Your task to perform on an android device: View the shopping cart on newegg.com. Add "usb-a to usb-b" to the cart on newegg.com Image 0: 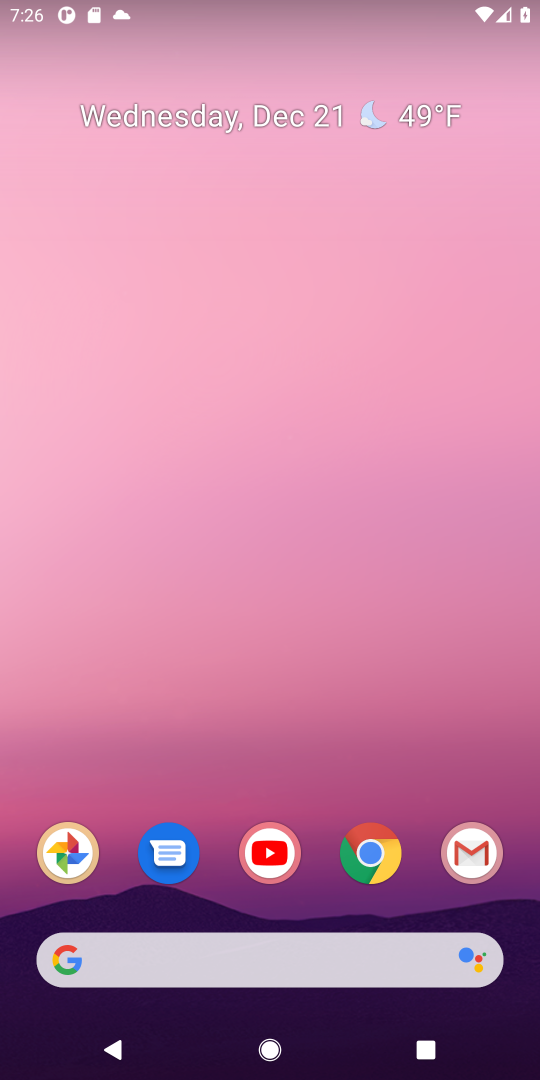
Step 0: click (375, 852)
Your task to perform on an android device: View the shopping cart on newegg.com. Add "usb-a to usb-b" to the cart on newegg.com Image 1: 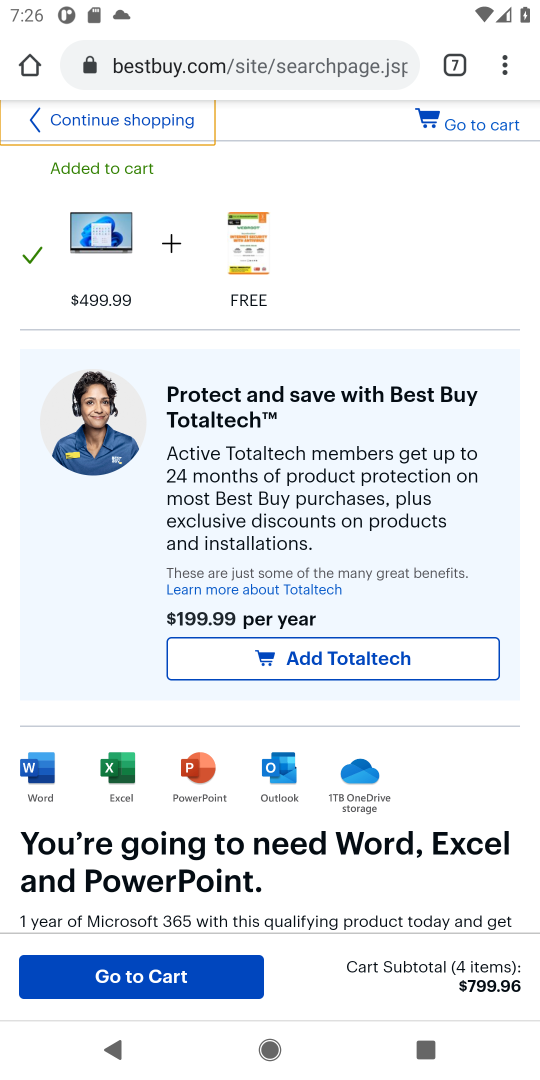
Step 1: click (452, 65)
Your task to perform on an android device: View the shopping cart on newegg.com. Add "usb-a to usb-b" to the cart on newegg.com Image 2: 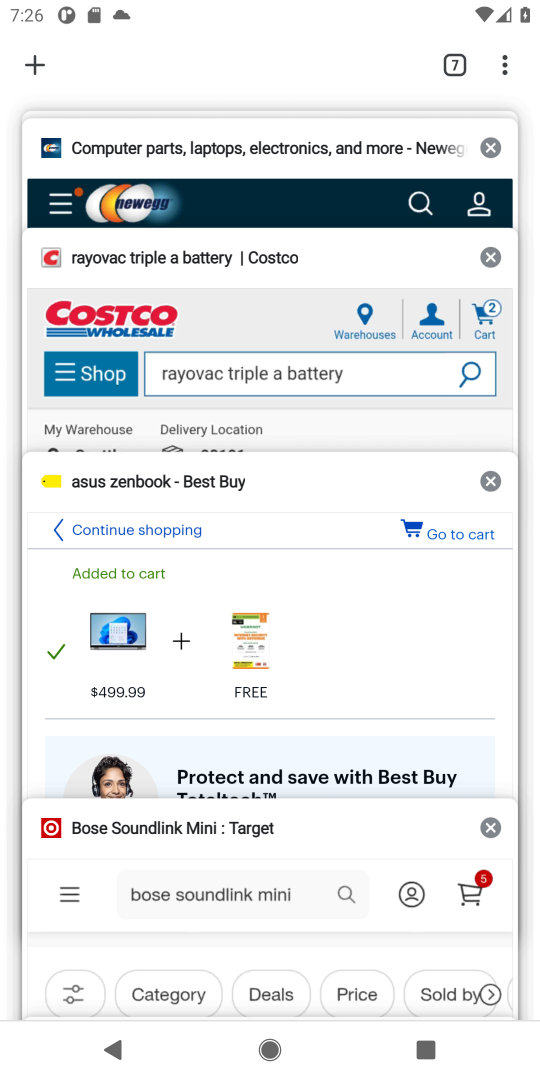
Step 2: click (318, 178)
Your task to perform on an android device: View the shopping cart on newegg.com. Add "usb-a to usb-b" to the cart on newegg.com Image 3: 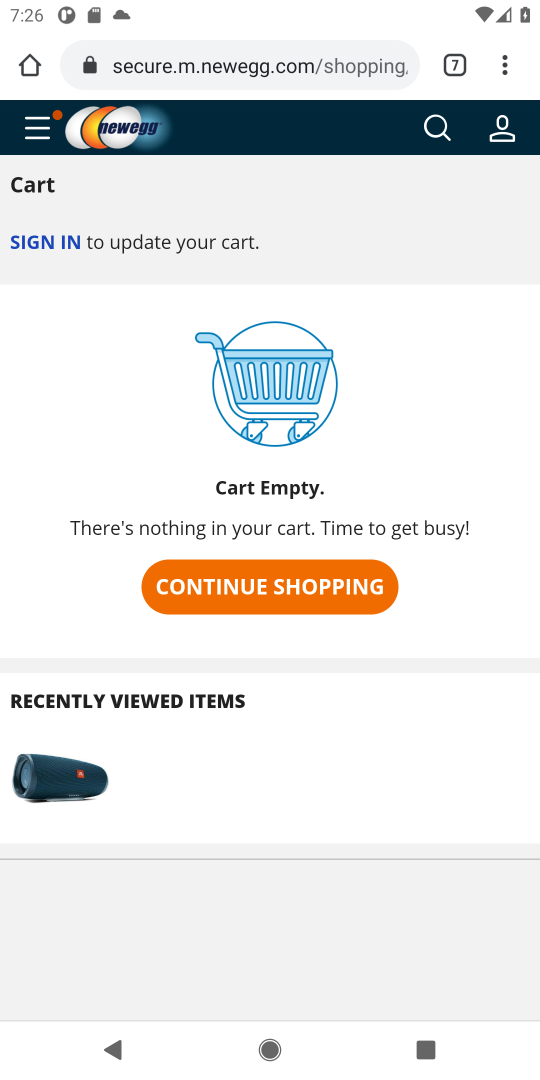
Step 3: click (440, 117)
Your task to perform on an android device: View the shopping cart on newegg.com. Add "usb-a to usb-b" to the cart on newegg.com Image 4: 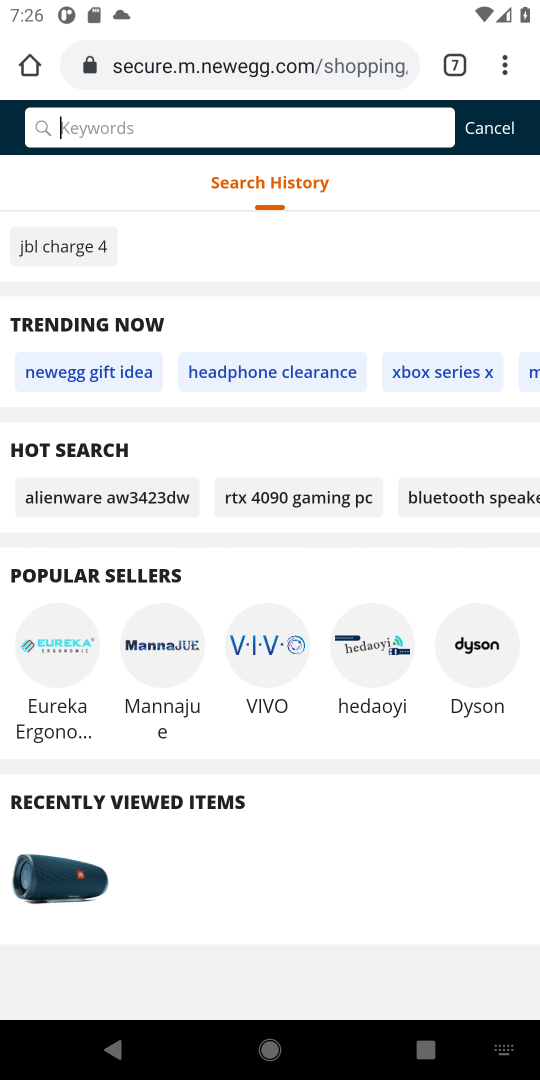
Step 4: type "usb-a to usb-b"
Your task to perform on an android device: View the shopping cart on newegg.com. Add "usb-a to usb-b" to the cart on newegg.com Image 5: 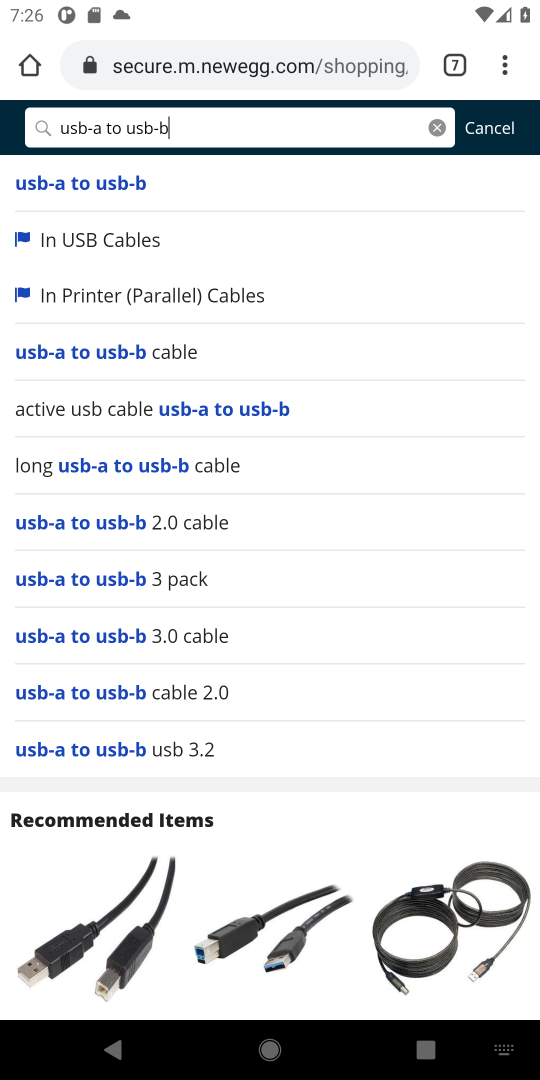
Step 5: click (47, 181)
Your task to perform on an android device: View the shopping cart on newegg.com. Add "usb-a to usb-b" to the cart on newegg.com Image 6: 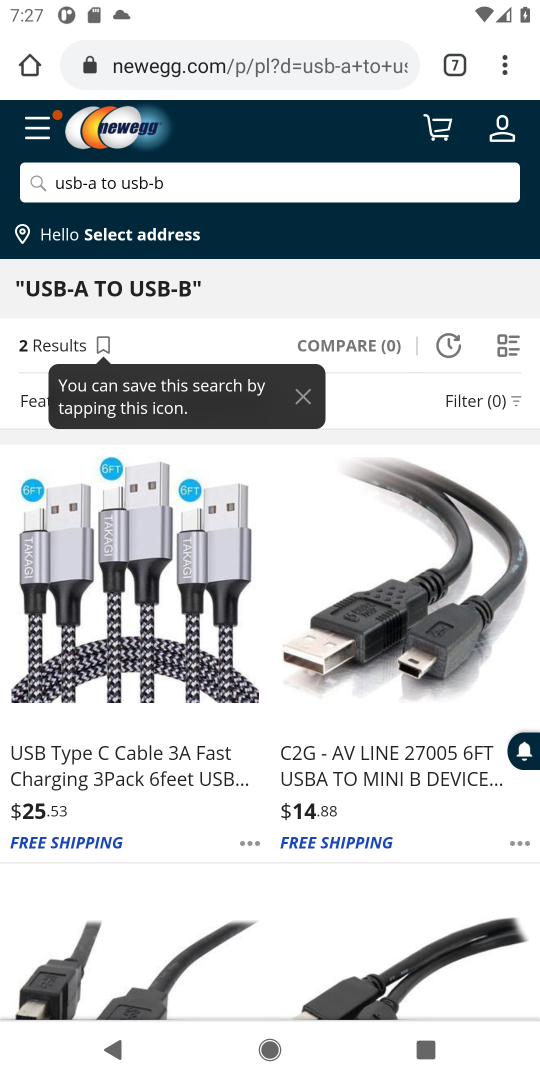
Step 6: drag from (212, 847) to (268, 611)
Your task to perform on an android device: View the shopping cart on newegg.com. Add "usb-a to usb-b" to the cart on newegg.com Image 7: 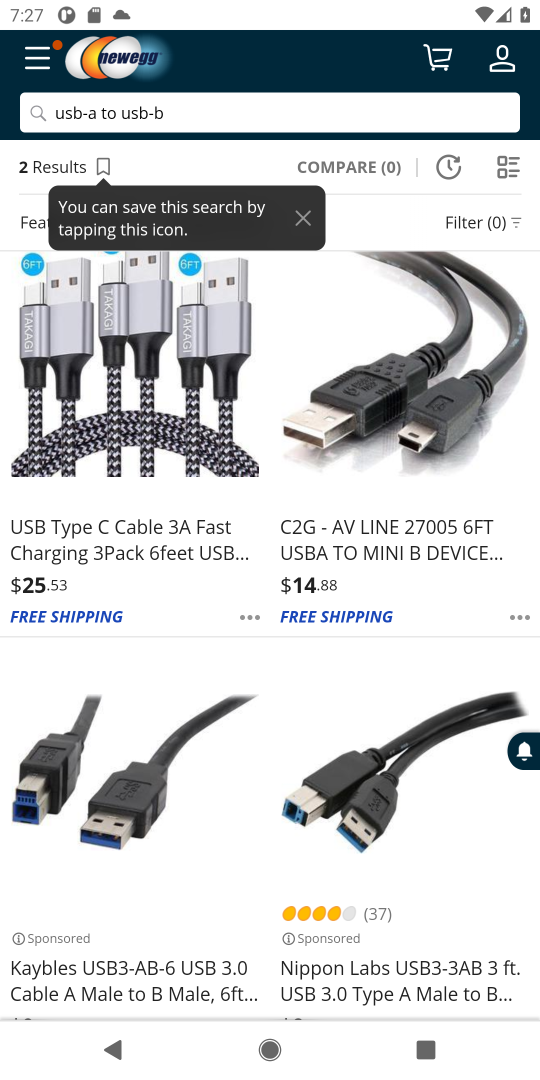
Step 7: drag from (181, 903) to (237, 516)
Your task to perform on an android device: View the shopping cart on newegg.com. Add "usb-a to usb-b" to the cart on newegg.com Image 8: 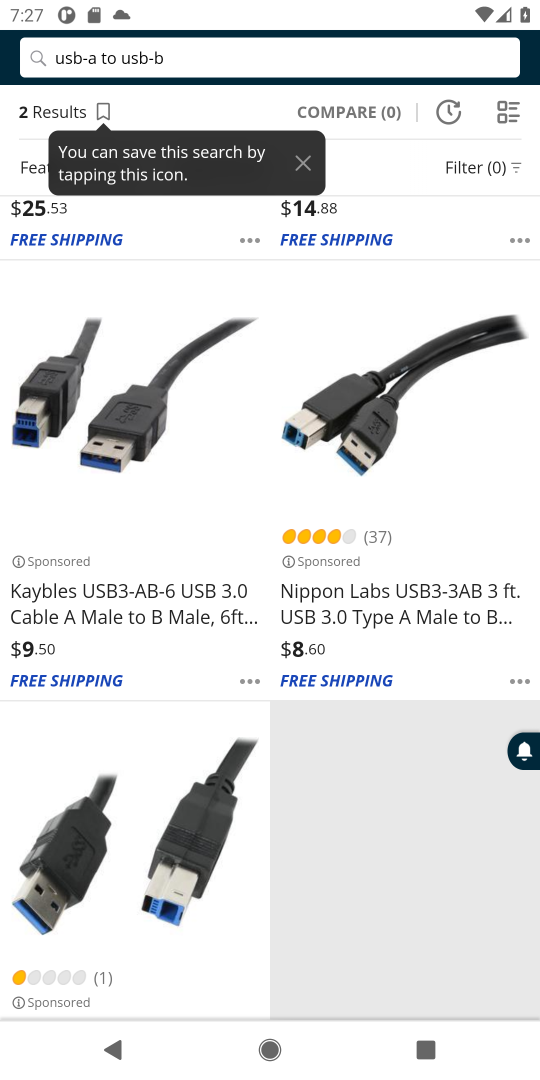
Step 8: click (166, 608)
Your task to perform on an android device: View the shopping cart on newegg.com. Add "usb-a to usb-b" to the cart on newegg.com Image 9: 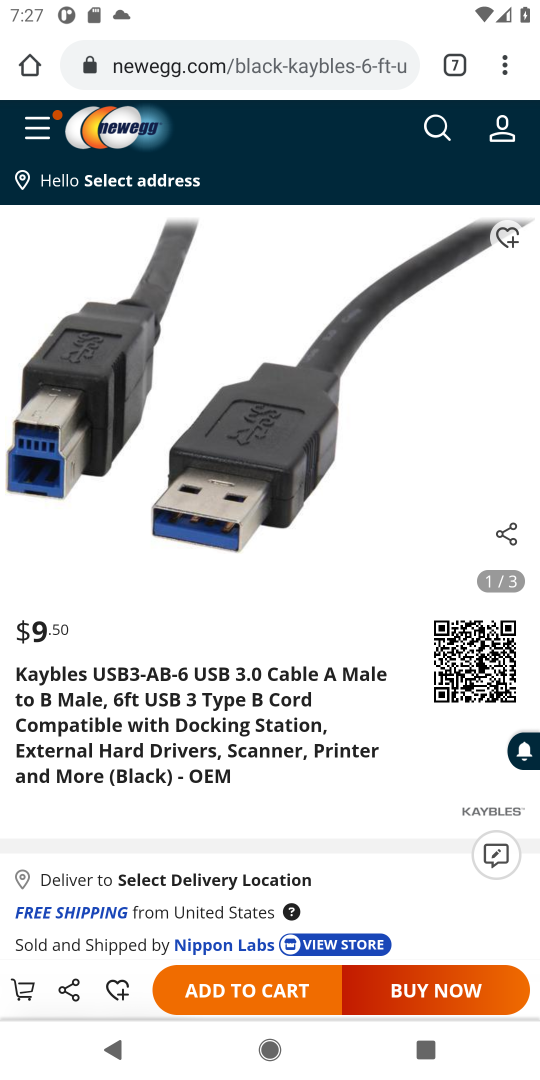
Step 9: click (221, 996)
Your task to perform on an android device: View the shopping cart on newegg.com. Add "usb-a to usb-b" to the cart on newegg.com Image 10: 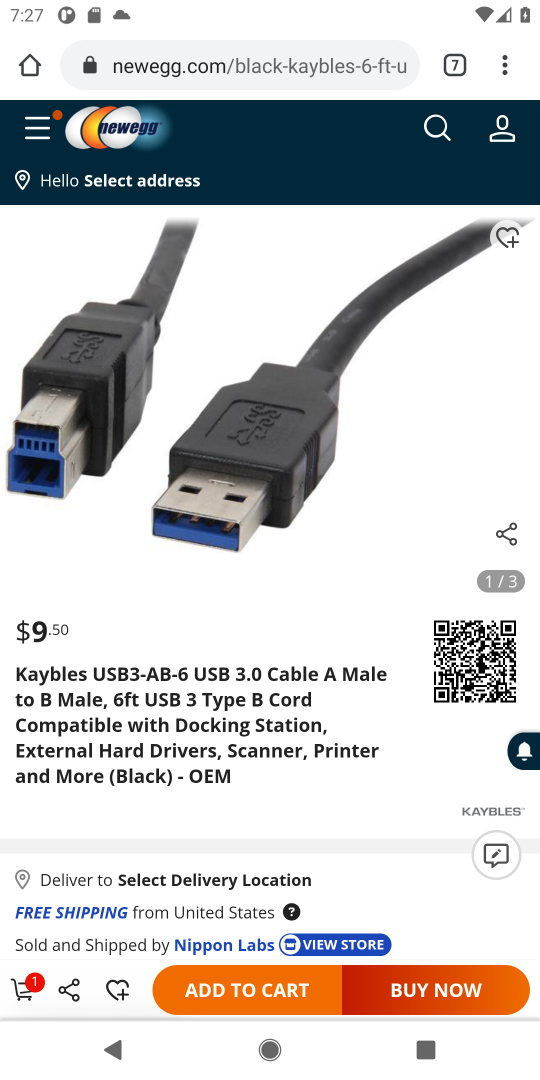
Step 10: task complete